Your task to perform on an android device: turn off location history Image 0: 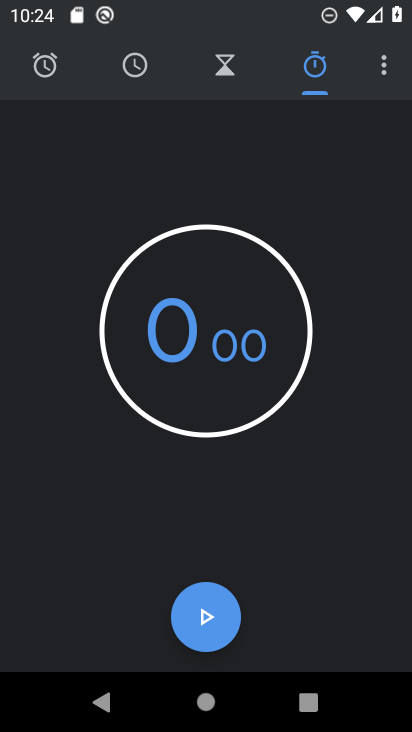
Step 0: press home button
Your task to perform on an android device: turn off location history Image 1: 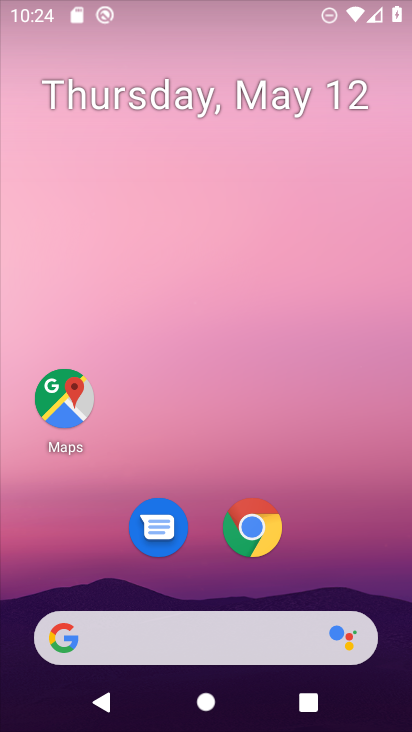
Step 1: drag from (303, 559) to (297, 93)
Your task to perform on an android device: turn off location history Image 2: 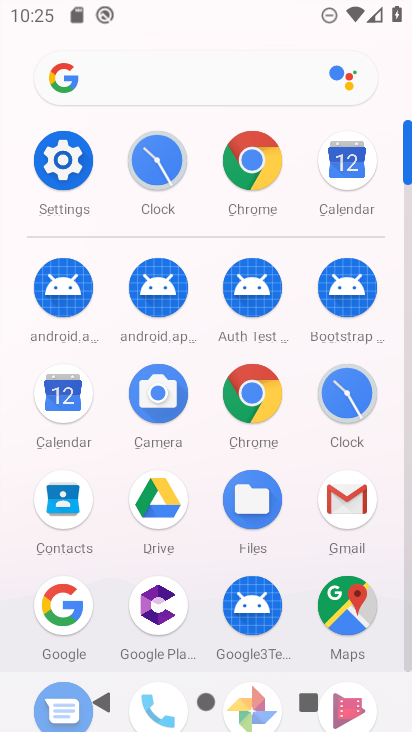
Step 2: click (60, 172)
Your task to perform on an android device: turn off location history Image 3: 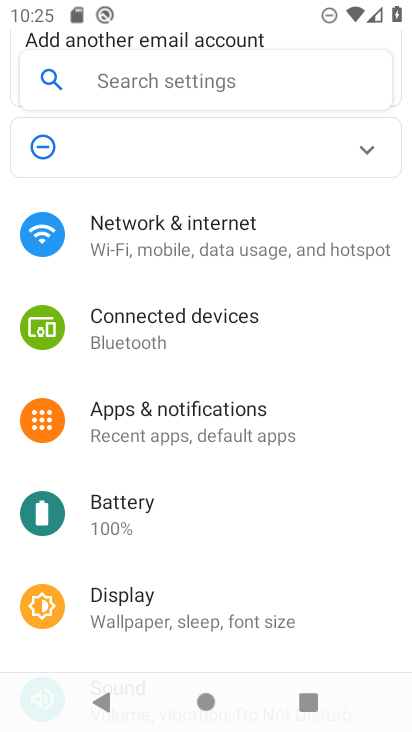
Step 3: drag from (130, 551) to (174, 298)
Your task to perform on an android device: turn off location history Image 4: 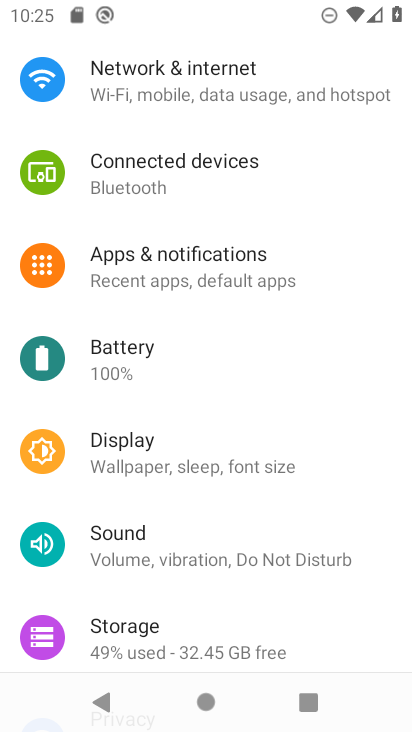
Step 4: drag from (203, 585) to (236, 351)
Your task to perform on an android device: turn off location history Image 5: 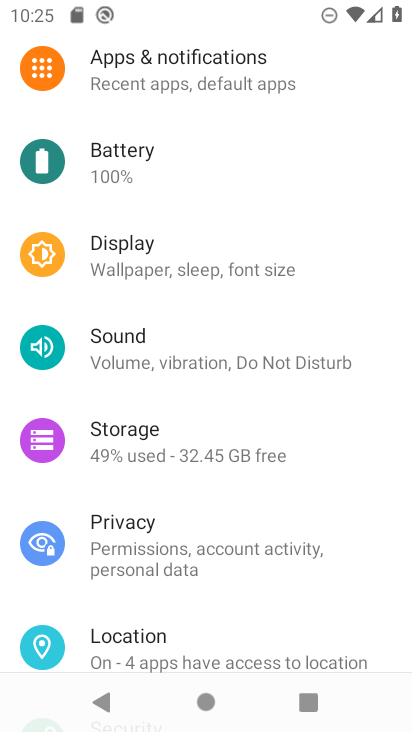
Step 5: click (187, 631)
Your task to perform on an android device: turn off location history Image 6: 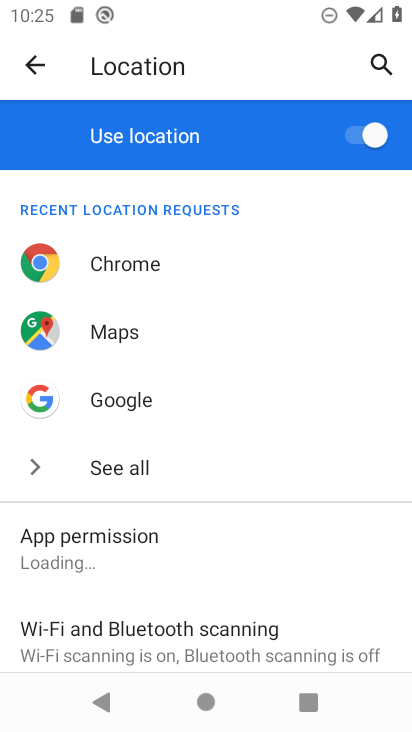
Step 6: drag from (187, 631) to (246, 391)
Your task to perform on an android device: turn off location history Image 7: 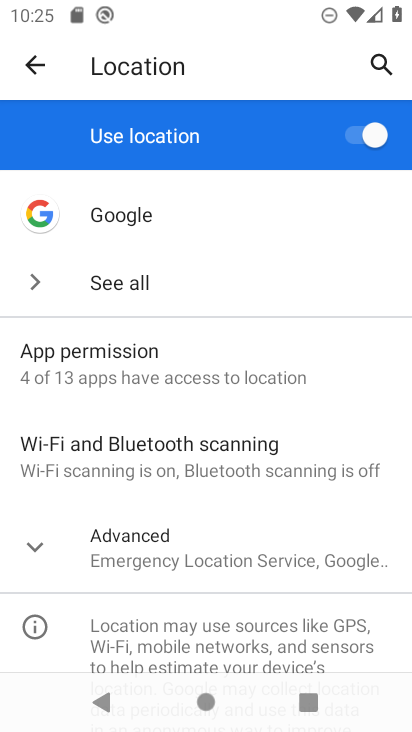
Step 7: click (205, 539)
Your task to perform on an android device: turn off location history Image 8: 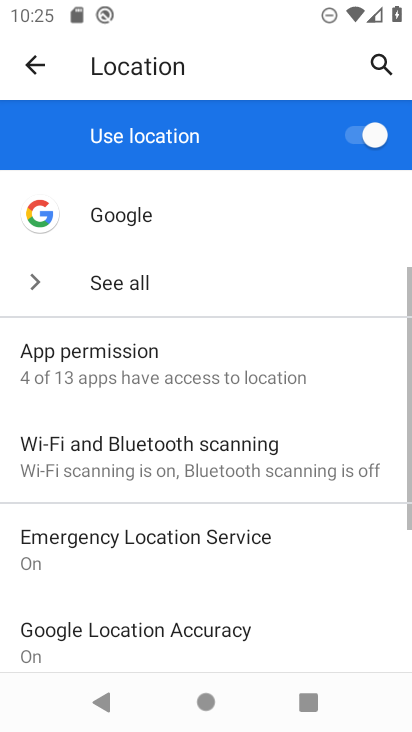
Step 8: drag from (205, 539) to (239, 286)
Your task to perform on an android device: turn off location history Image 9: 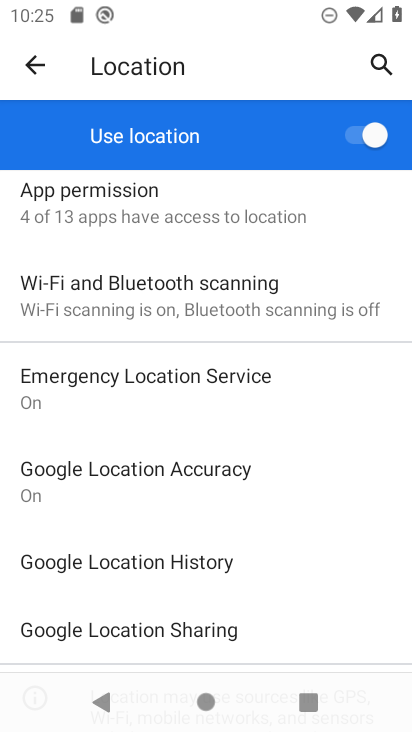
Step 9: click (218, 547)
Your task to perform on an android device: turn off location history Image 10: 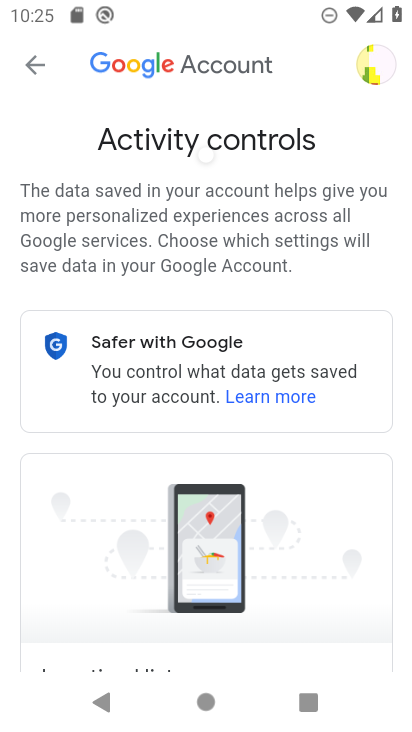
Step 10: drag from (241, 541) to (260, 105)
Your task to perform on an android device: turn off location history Image 11: 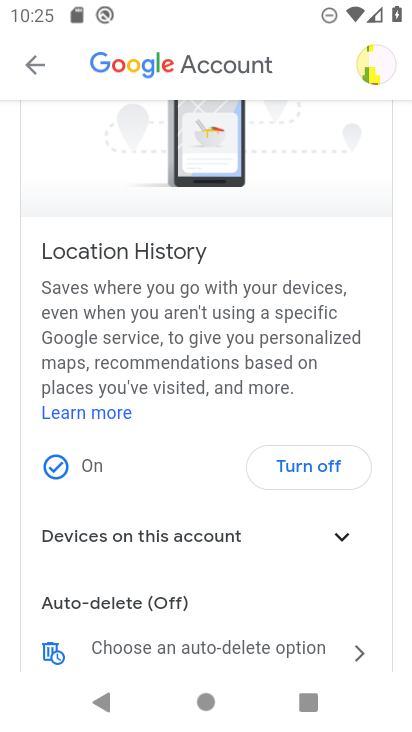
Step 11: click (286, 460)
Your task to perform on an android device: turn off location history Image 12: 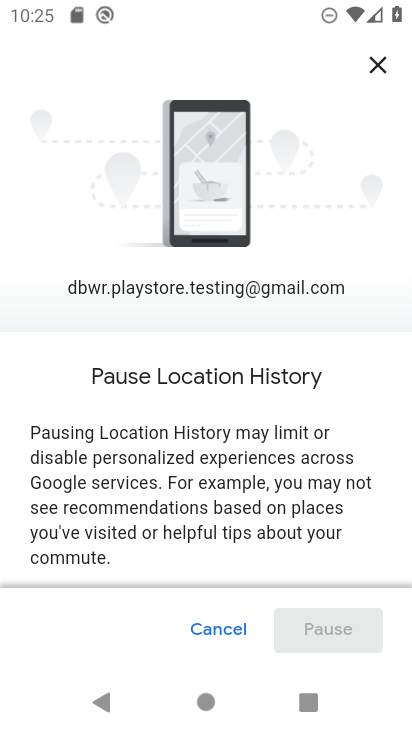
Step 12: drag from (319, 555) to (304, 78)
Your task to perform on an android device: turn off location history Image 13: 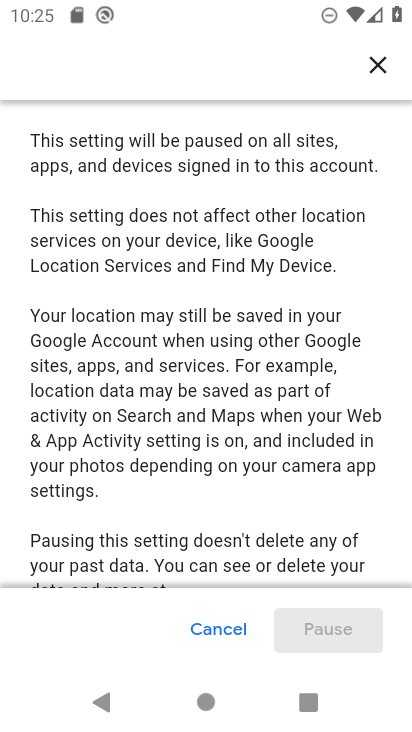
Step 13: drag from (314, 491) to (305, 227)
Your task to perform on an android device: turn off location history Image 14: 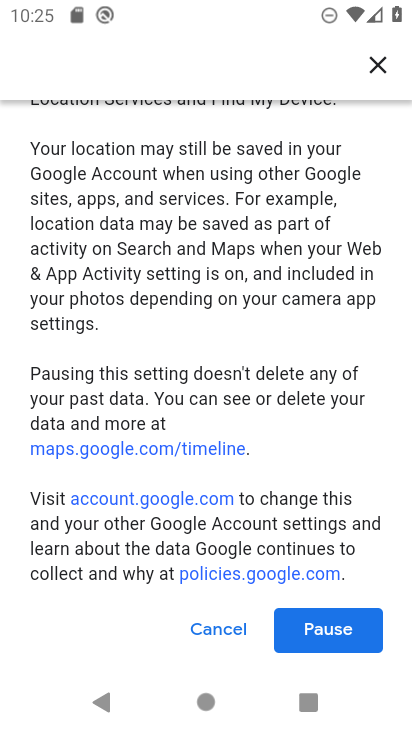
Step 14: click (344, 642)
Your task to perform on an android device: turn off location history Image 15: 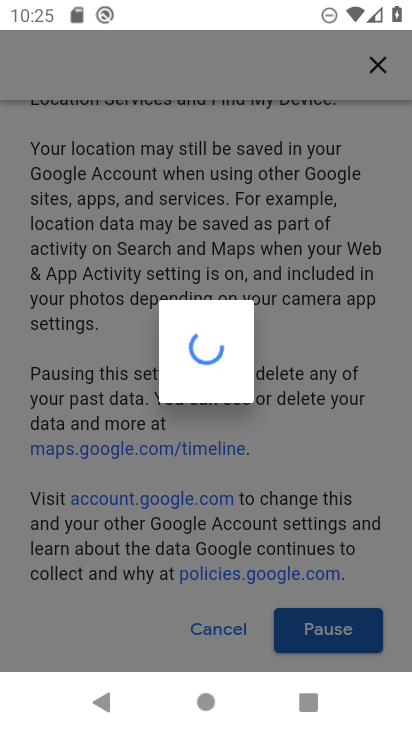
Step 15: task complete